Your task to perform on an android device: What's the weather today? Image 0: 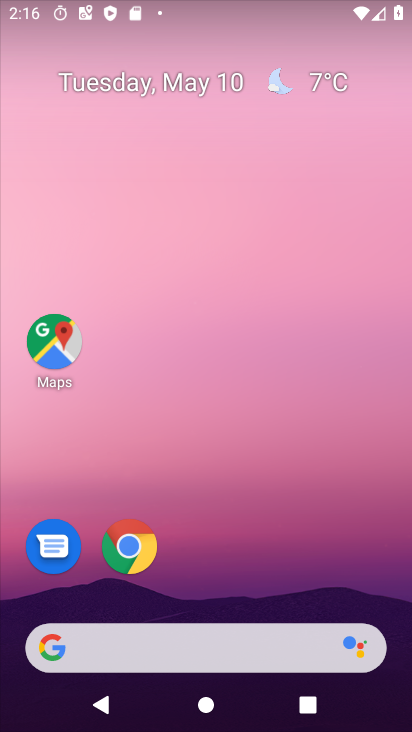
Step 0: drag from (342, 537) to (316, 120)
Your task to perform on an android device: What's the weather today? Image 1: 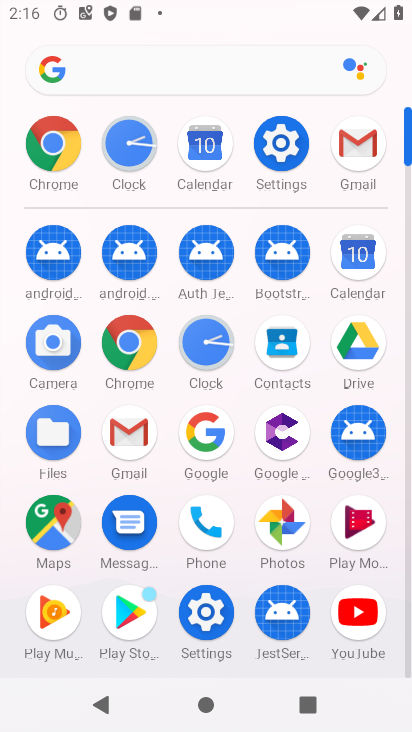
Step 1: press home button
Your task to perform on an android device: What's the weather today? Image 2: 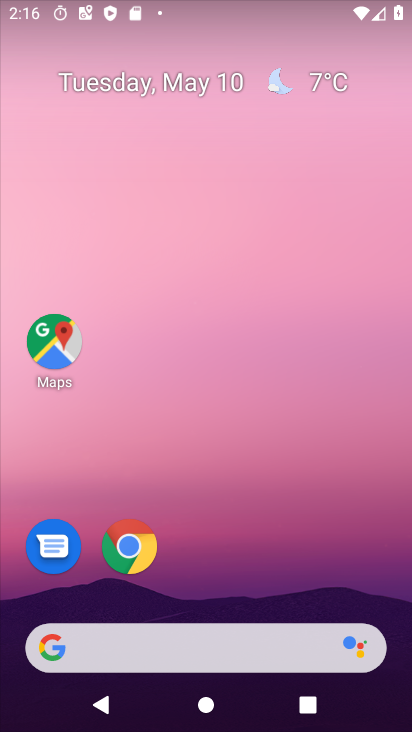
Step 2: drag from (292, 512) to (265, 73)
Your task to perform on an android device: What's the weather today? Image 3: 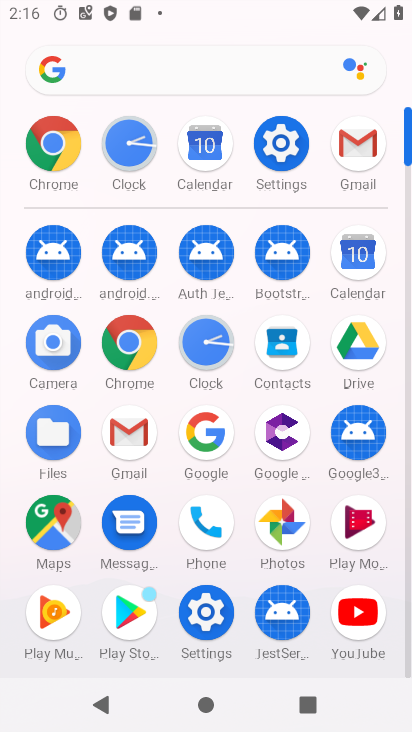
Step 3: press home button
Your task to perform on an android device: What's the weather today? Image 4: 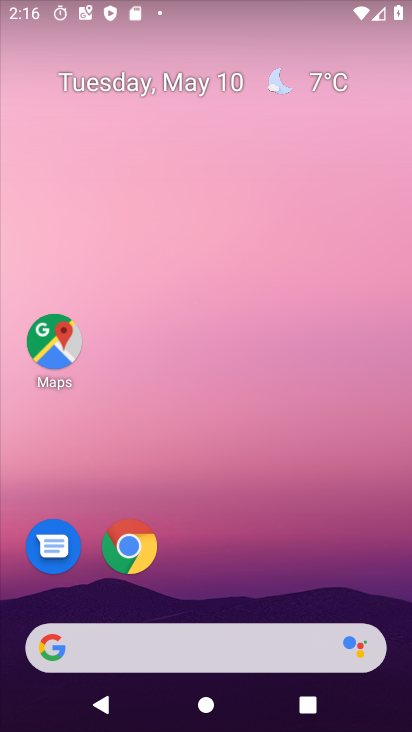
Step 4: click (320, 77)
Your task to perform on an android device: What's the weather today? Image 5: 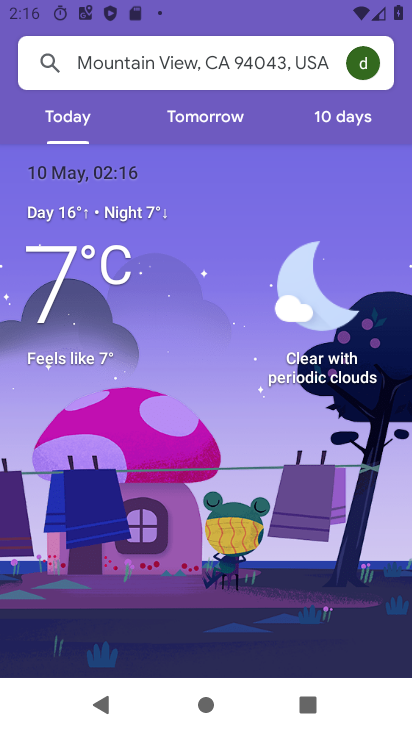
Step 5: task complete